Your task to perform on an android device: manage bookmarks in the chrome app Image 0: 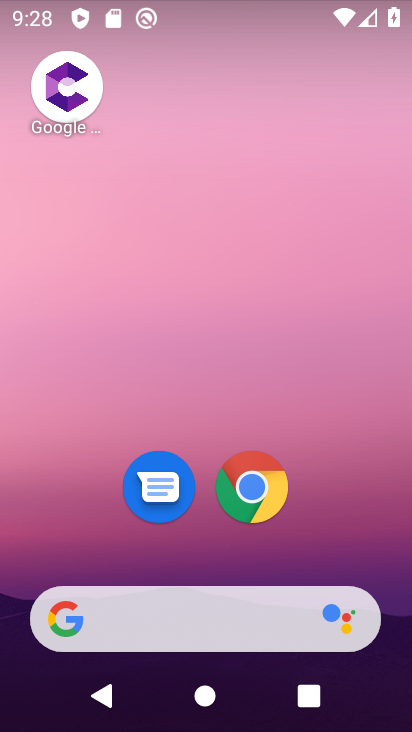
Step 0: click (275, 477)
Your task to perform on an android device: manage bookmarks in the chrome app Image 1: 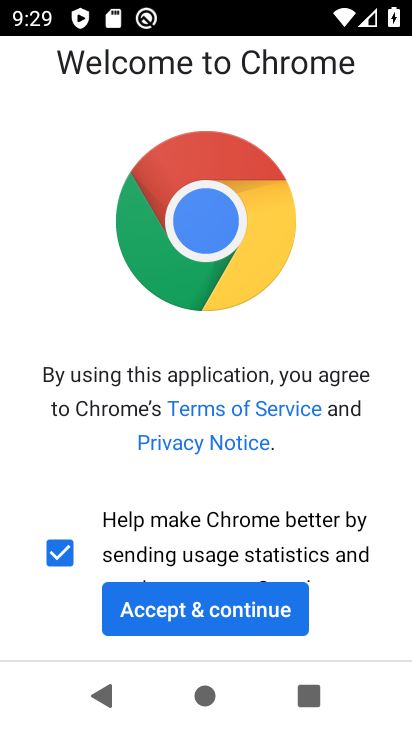
Step 1: click (232, 589)
Your task to perform on an android device: manage bookmarks in the chrome app Image 2: 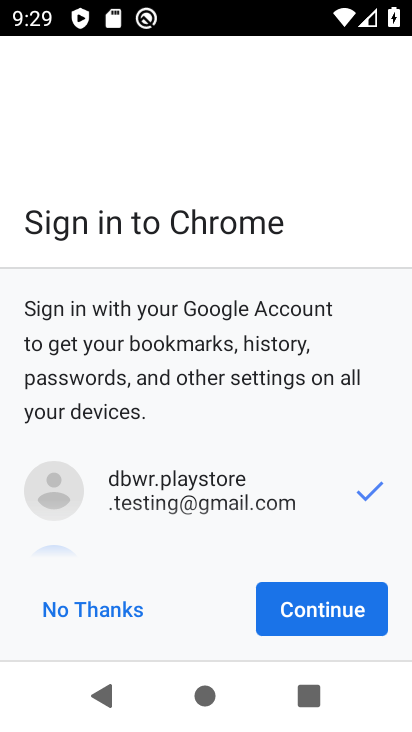
Step 2: click (324, 597)
Your task to perform on an android device: manage bookmarks in the chrome app Image 3: 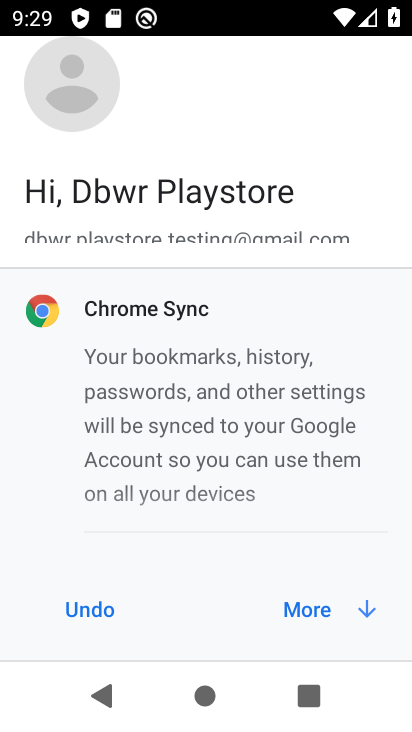
Step 3: click (337, 600)
Your task to perform on an android device: manage bookmarks in the chrome app Image 4: 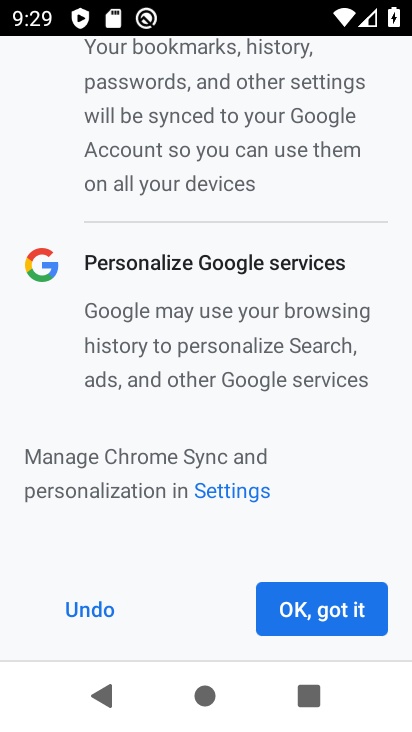
Step 4: click (377, 621)
Your task to perform on an android device: manage bookmarks in the chrome app Image 5: 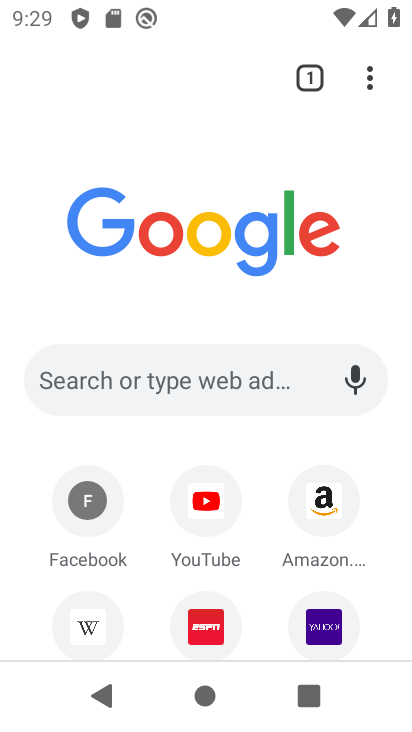
Step 5: click (374, 77)
Your task to perform on an android device: manage bookmarks in the chrome app Image 6: 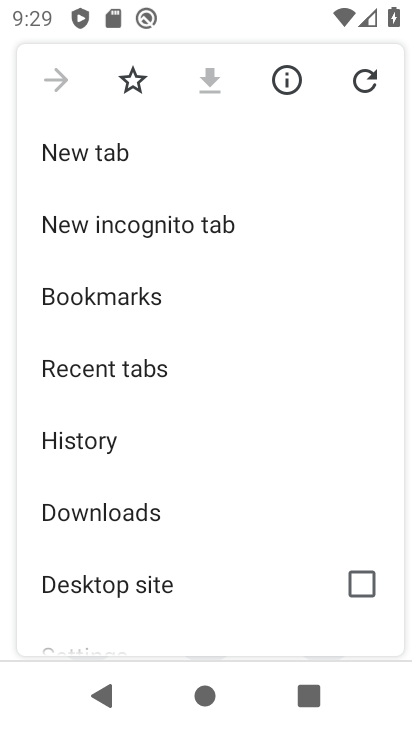
Step 6: click (141, 284)
Your task to perform on an android device: manage bookmarks in the chrome app Image 7: 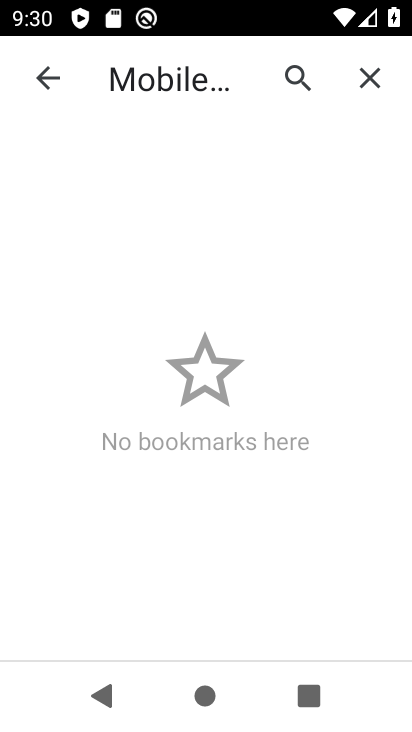
Step 7: click (358, 84)
Your task to perform on an android device: manage bookmarks in the chrome app Image 8: 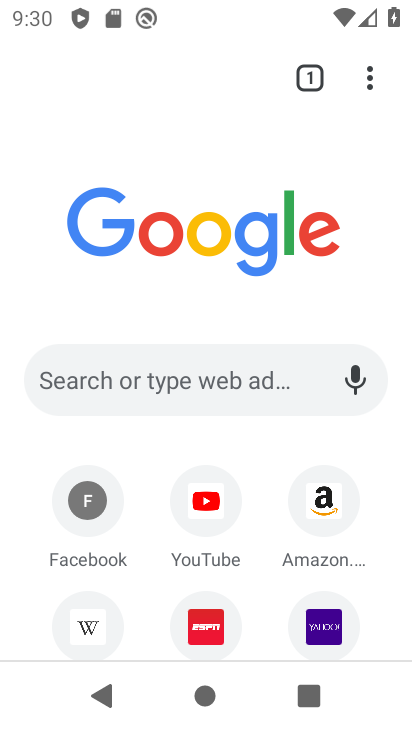
Step 8: click (368, 86)
Your task to perform on an android device: manage bookmarks in the chrome app Image 9: 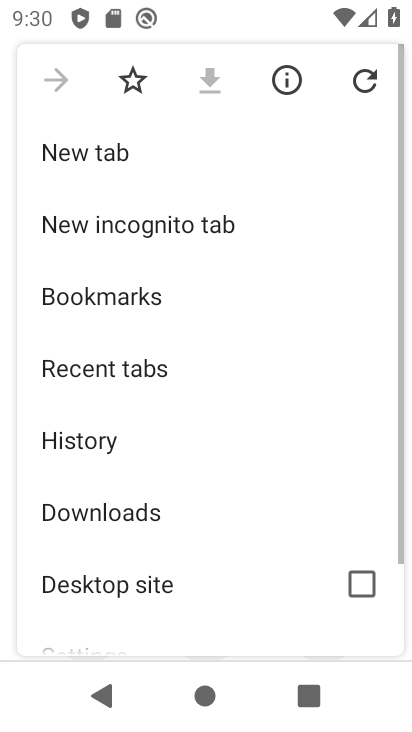
Step 9: click (130, 82)
Your task to perform on an android device: manage bookmarks in the chrome app Image 10: 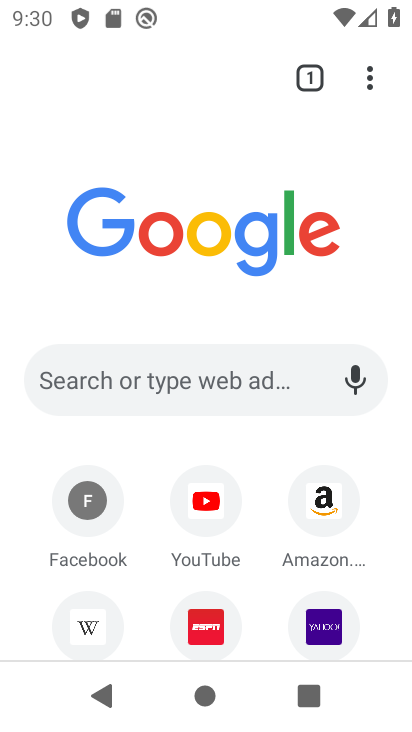
Step 10: task complete